Your task to perform on an android device: Open calendar and show me the fourth week of next month Image 0: 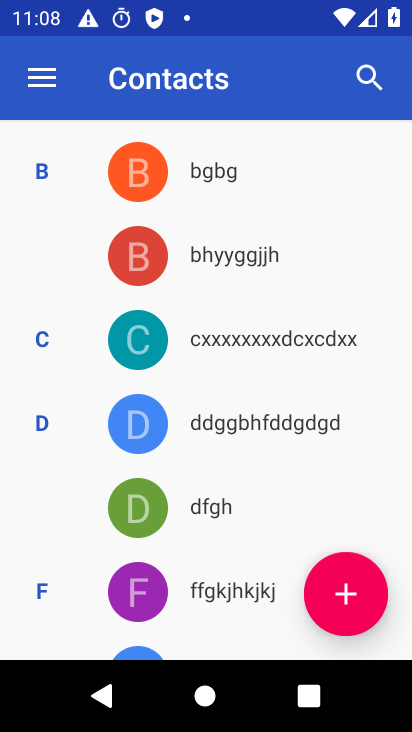
Step 0: press home button
Your task to perform on an android device: Open calendar and show me the fourth week of next month Image 1: 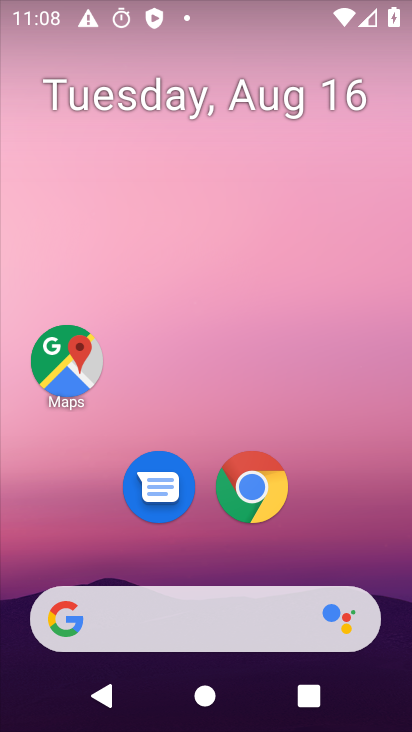
Step 1: drag from (382, 514) to (366, 150)
Your task to perform on an android device: Open calendar and show me the fourth week of next month Image 2: 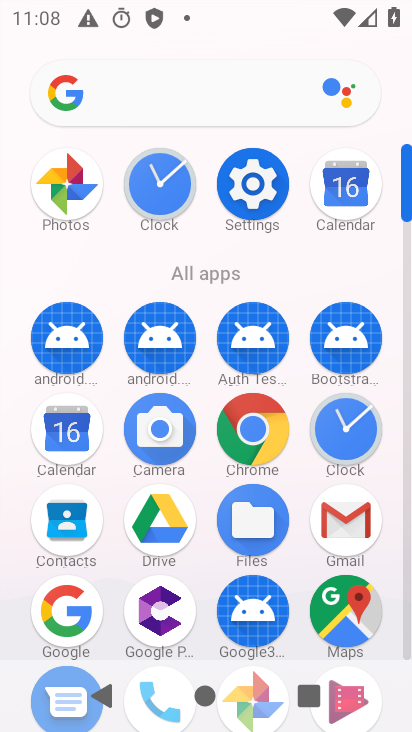
Step 2: click (335, 196)
Your task to perform on an android device: Open calendar and show me the fourth week of next month Image 3: 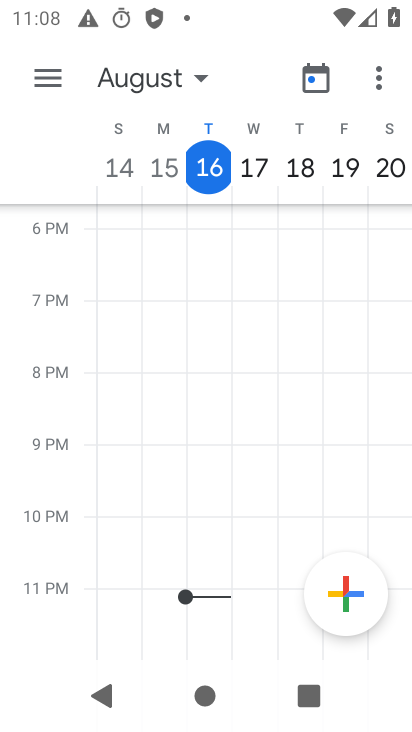
Step 3: click (189, 80)
Your task to perform on an android device: Open calendar and show me the fourth week of next month Image 4: 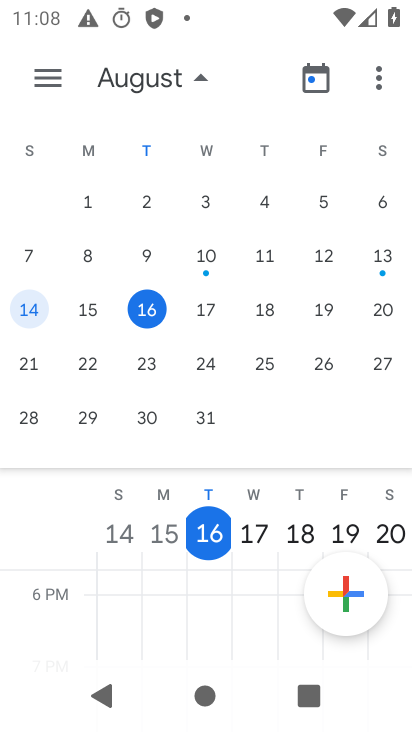
Step 4: drag from (384, 395) to (6, 336)
Your task to perform on an android device: Open calendar and show me the fourth week of next month Image 5: 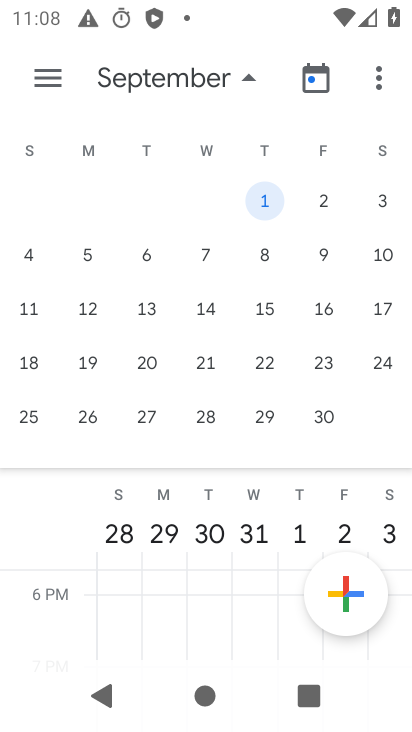
Step 5: click (213, 413)
Your task to perform on an android device: Open calendar and show me the fourth week of next month Image 6: 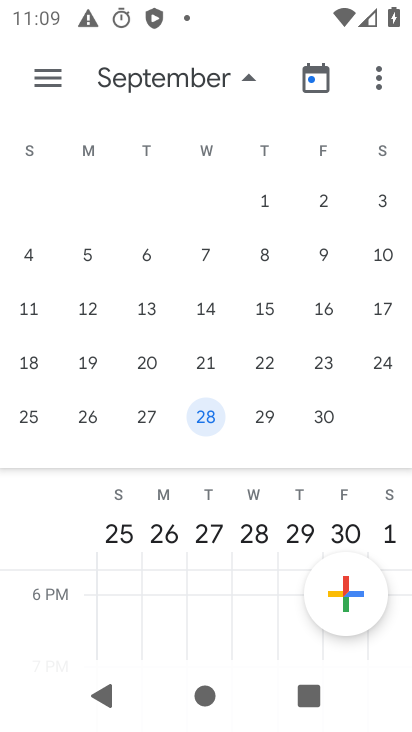
Step 6: task complete